Your task to perform on an android device: create a new album in the google photos Image 0: 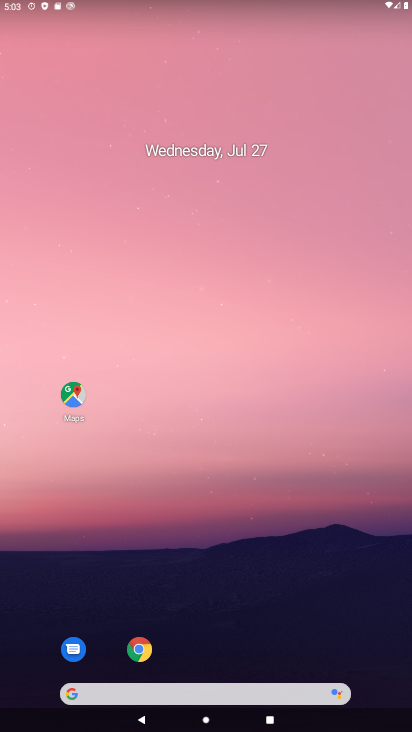
Step 0: drag from (201, 692) to (89, 36)
Your task to perform on an android device: create a new album in the google photos Image 1: 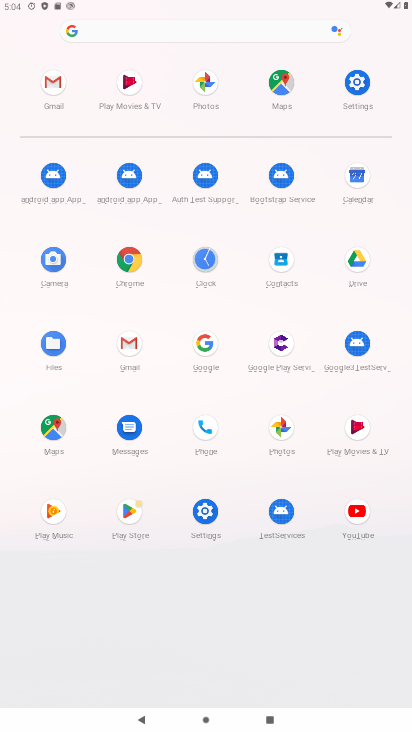
Step 1: click (280, 427)
Your task to perform on an android device: create a new album in the google photos Image 2: 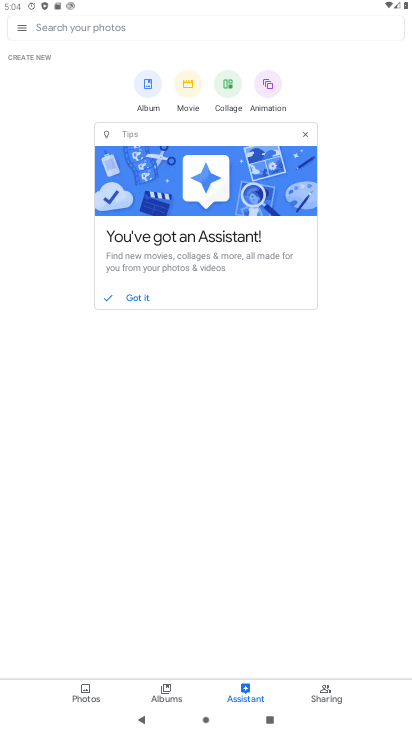
Step 2: click (22, 24)
Your task to perform on an android device: create a new album in the google photos Image 3: 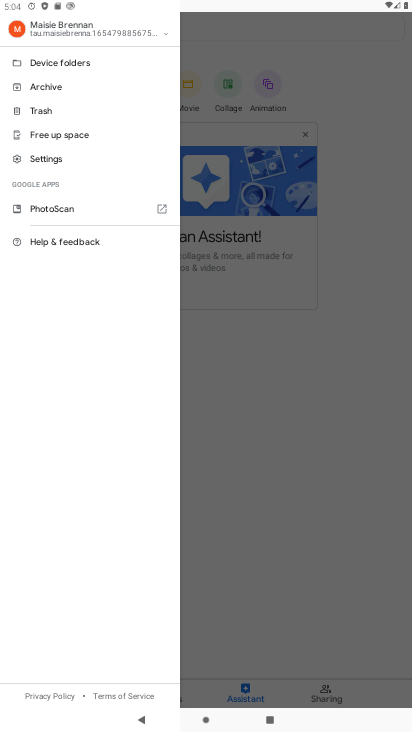
Step 3: click (62, 165)
Your task to perform on an android device: create a new album in the google photos Image 4: 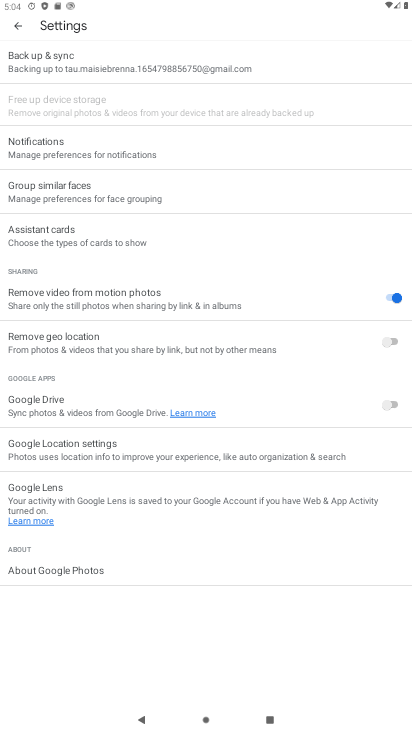
Step 4: press back button
Your task to perform on an android device: create a new album in the google photos Image 5: 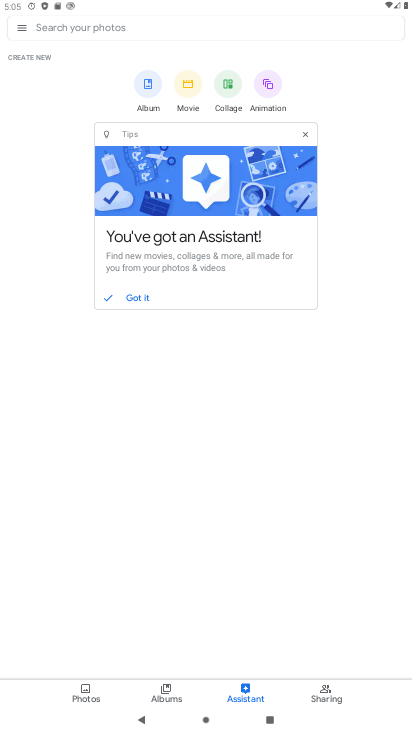
Step 5: press back button
Your task to perform on an android device: create a new album in the google photos Image 6: 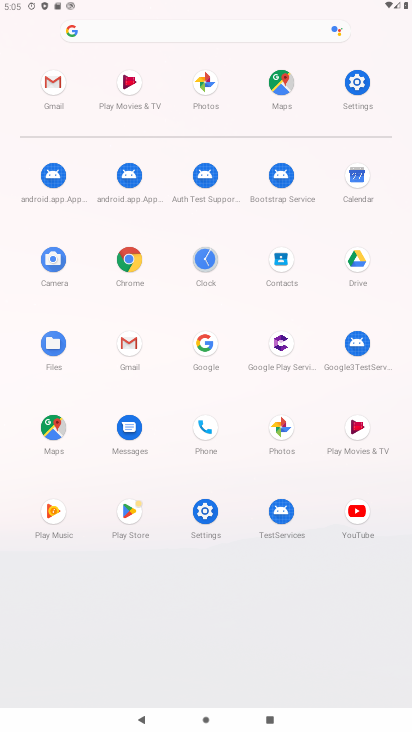
Step 6: click (285, 424)
Your task to perform on an android device: create a new album in the google photos Image 7: 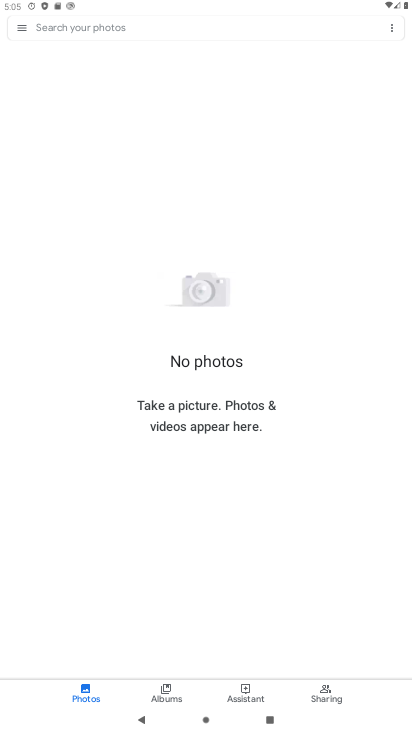
Step 7: click (390, 26)
Your task to perform on an android device: create a new album in the google photos Image 8: 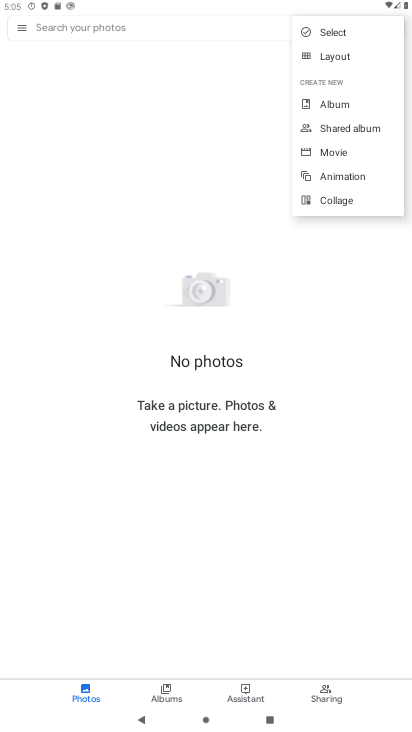
Step 8: click (335, 97)
Your task to perform on an android device: create a new album in the google photos Image 9: 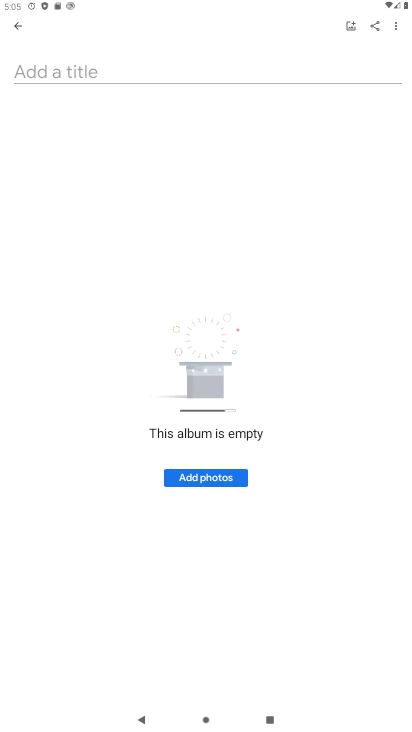
Step 9: task complete